Your task to perform on an android device: uninstall "PlayWell" Image 0: 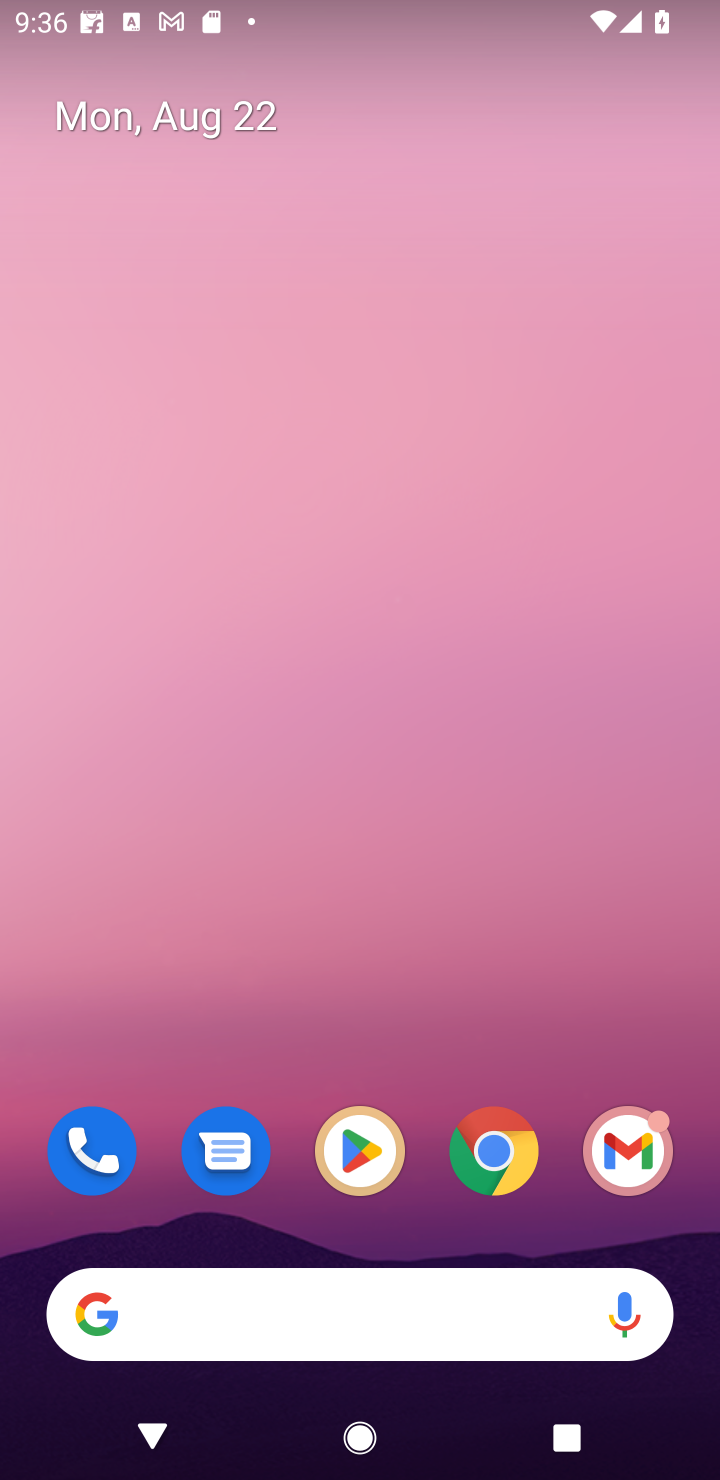
Step 0: press home button
Your task to perform on an android device: uninstall "PlayWell" Image 1: 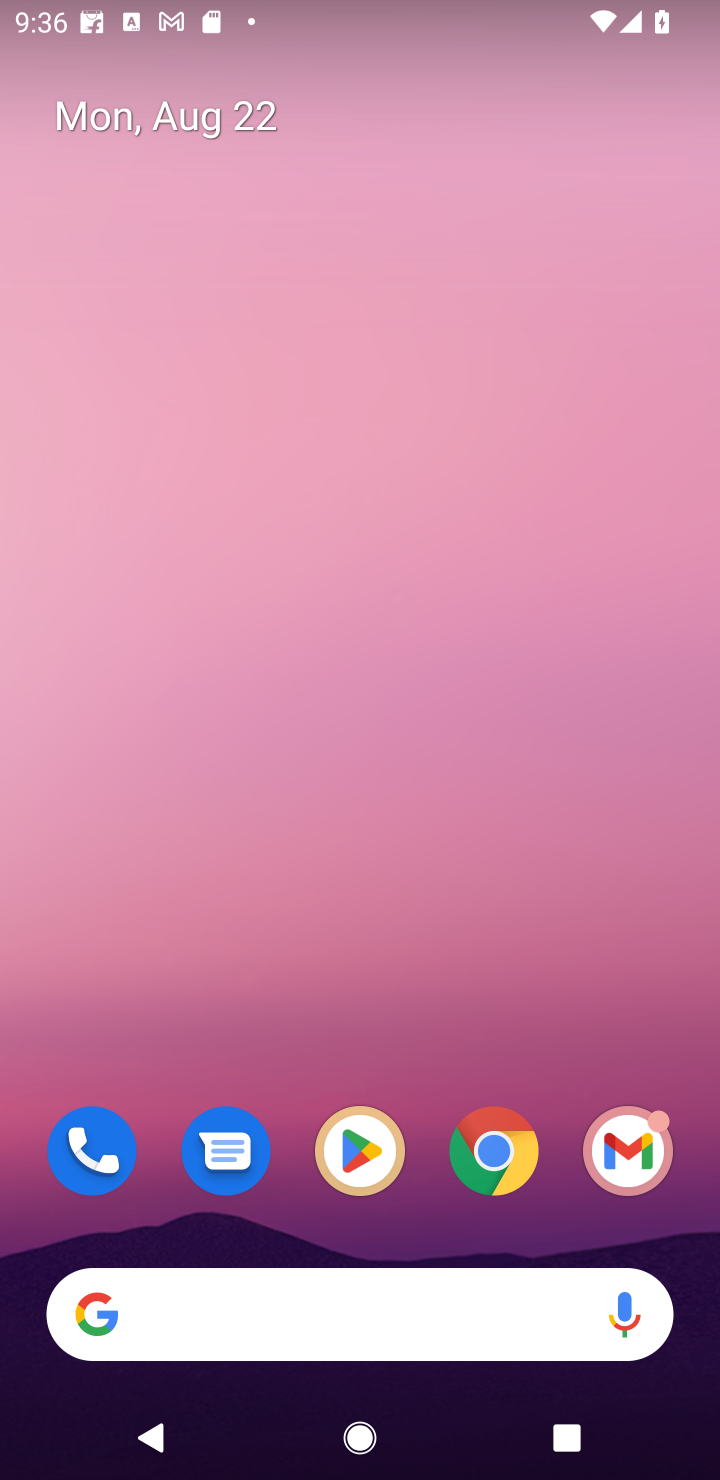
Step 1: click (363, 1158)
Your task to perform on an android device: uninstall "PlayWell" Image 2: 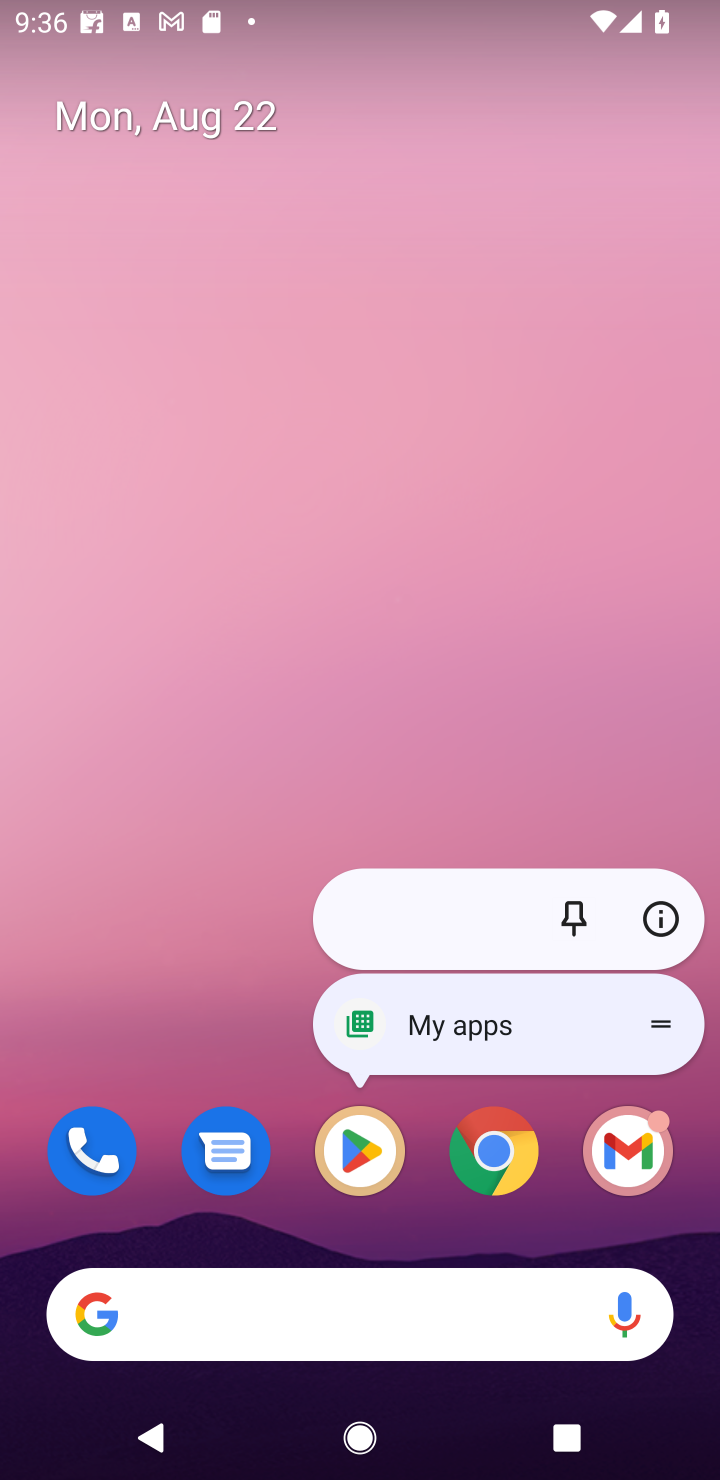
Step 2: click (352, 1158)
Your task to perform on an android device: uninstall "PlayWell" Image 3: 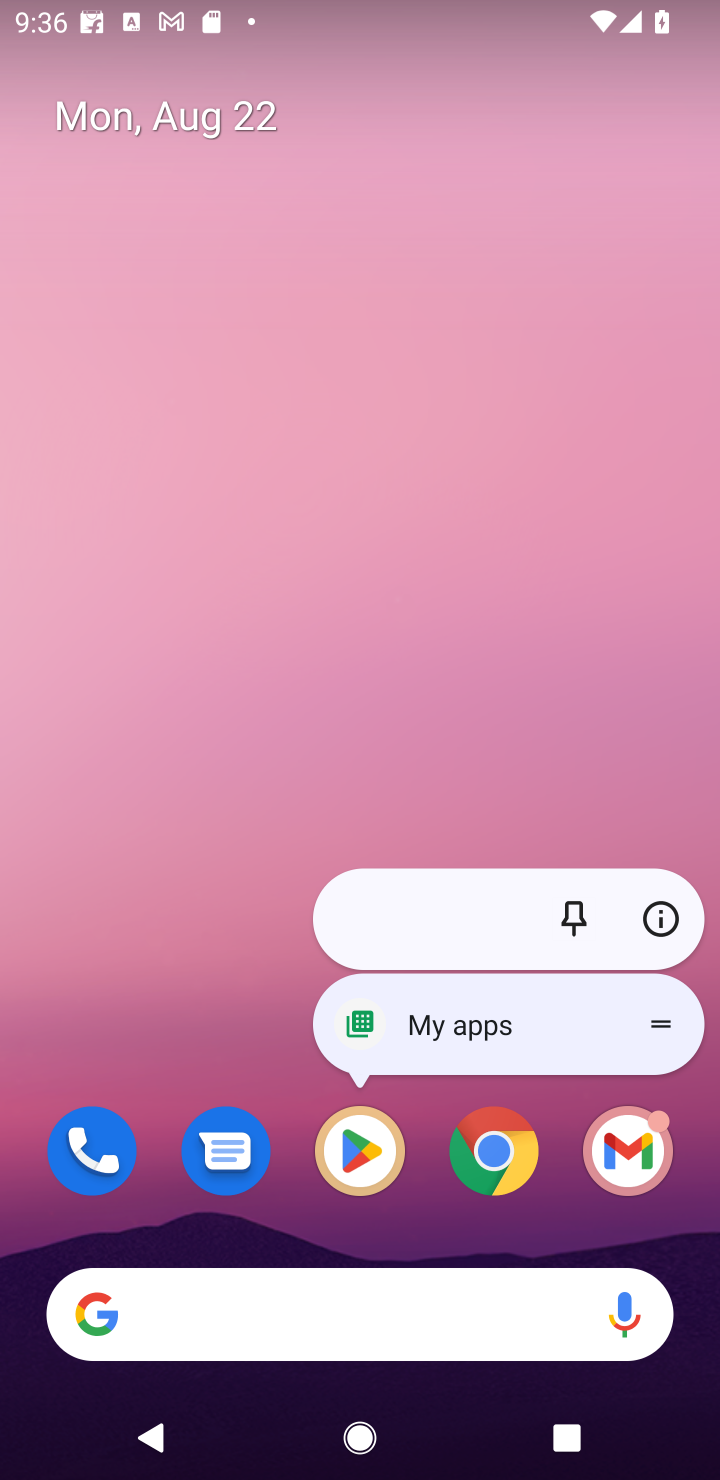
Step 3: click (352, 1158)
Your task to perform on an android device: uninstall "PlayWell" Image 4: 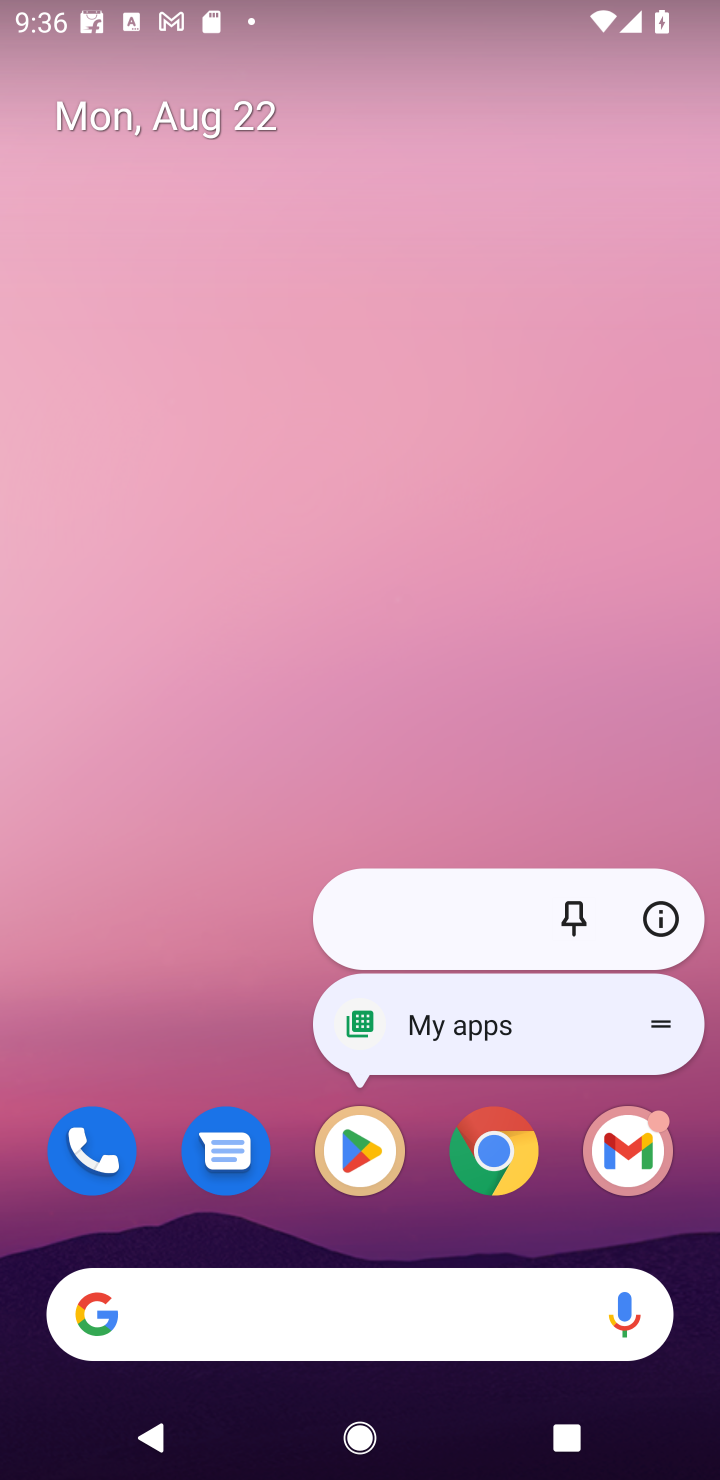
Step 4: click (352, 1155)
Your task to perform on an android device: uninstall "PlayWell" Image 5: 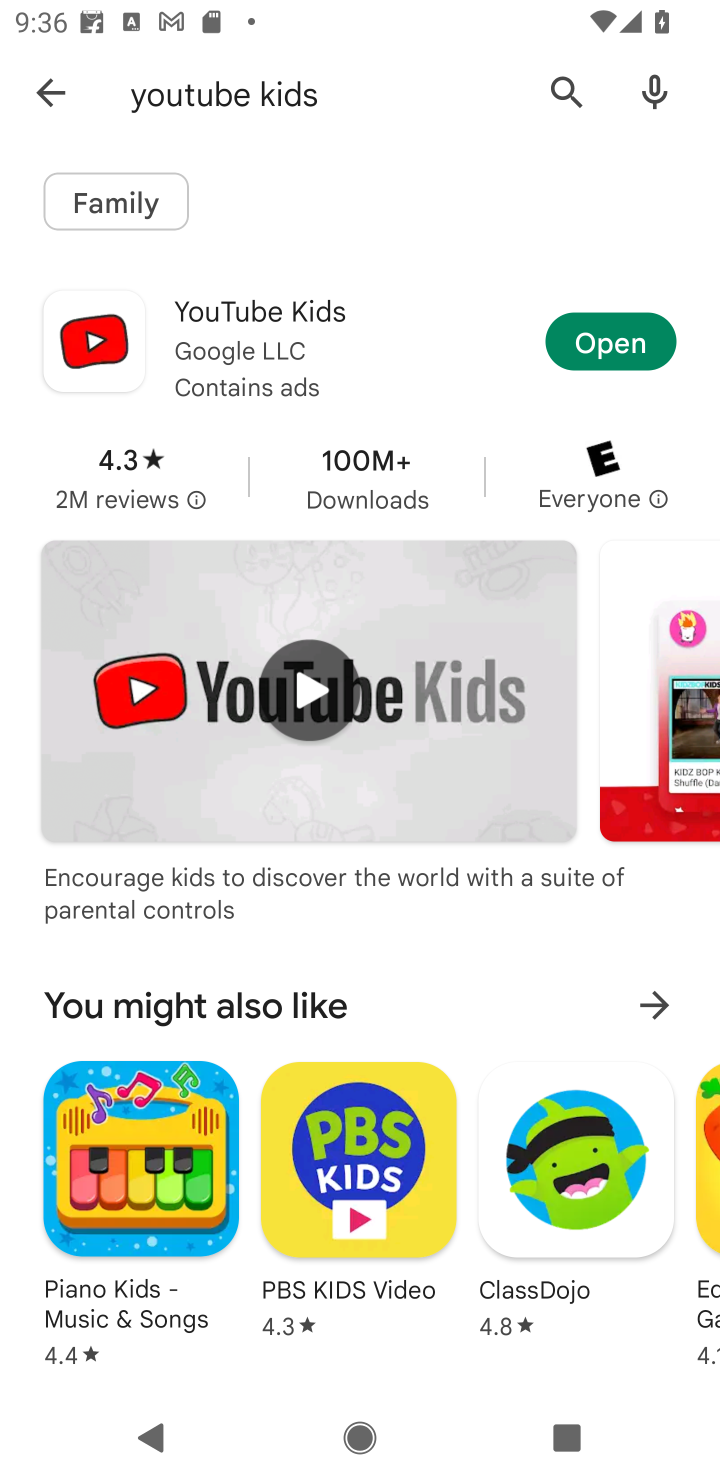
Step 5: click (557, 78)
Your task to perform on an android device: uninstall "PlayWell" Image 6: 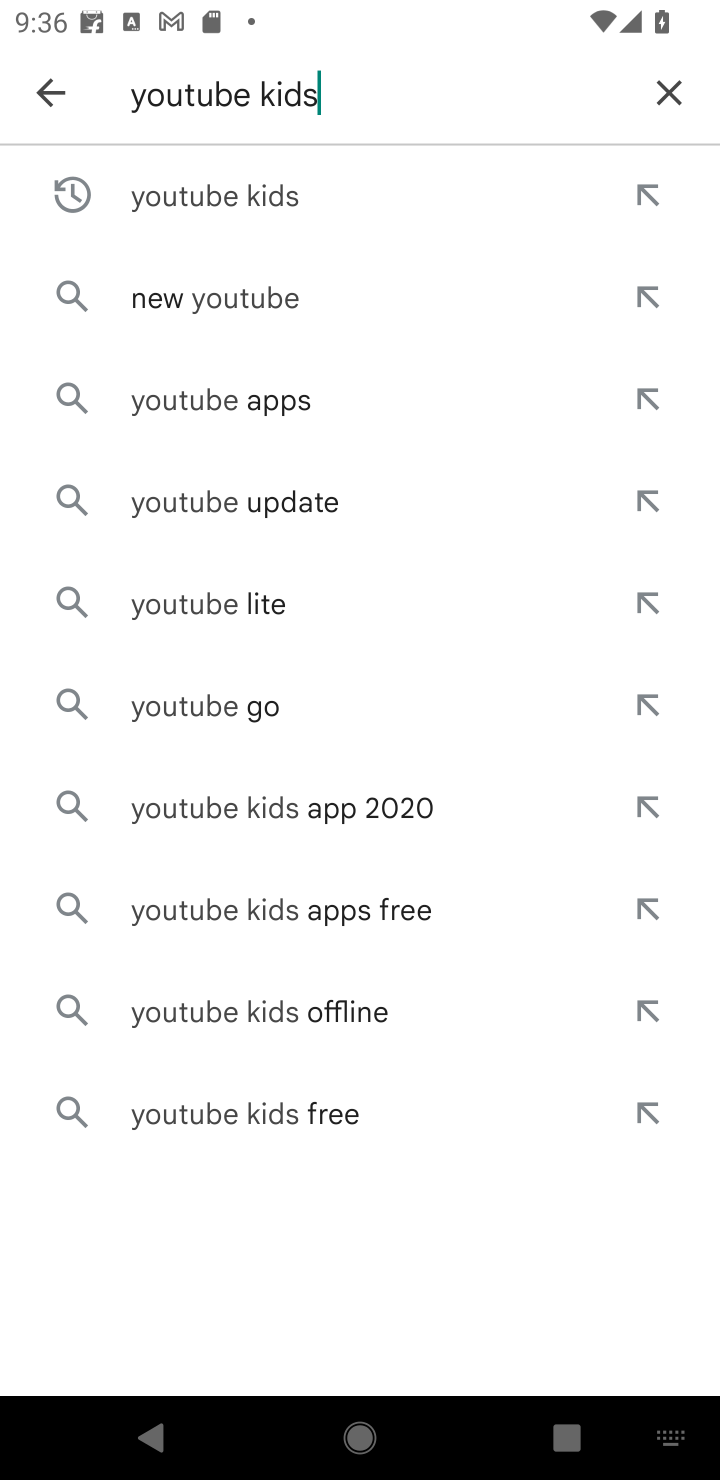
Step 6: click (649, 88)
Your task to perform on an android device: uninstall "PlayWell" Image 7: 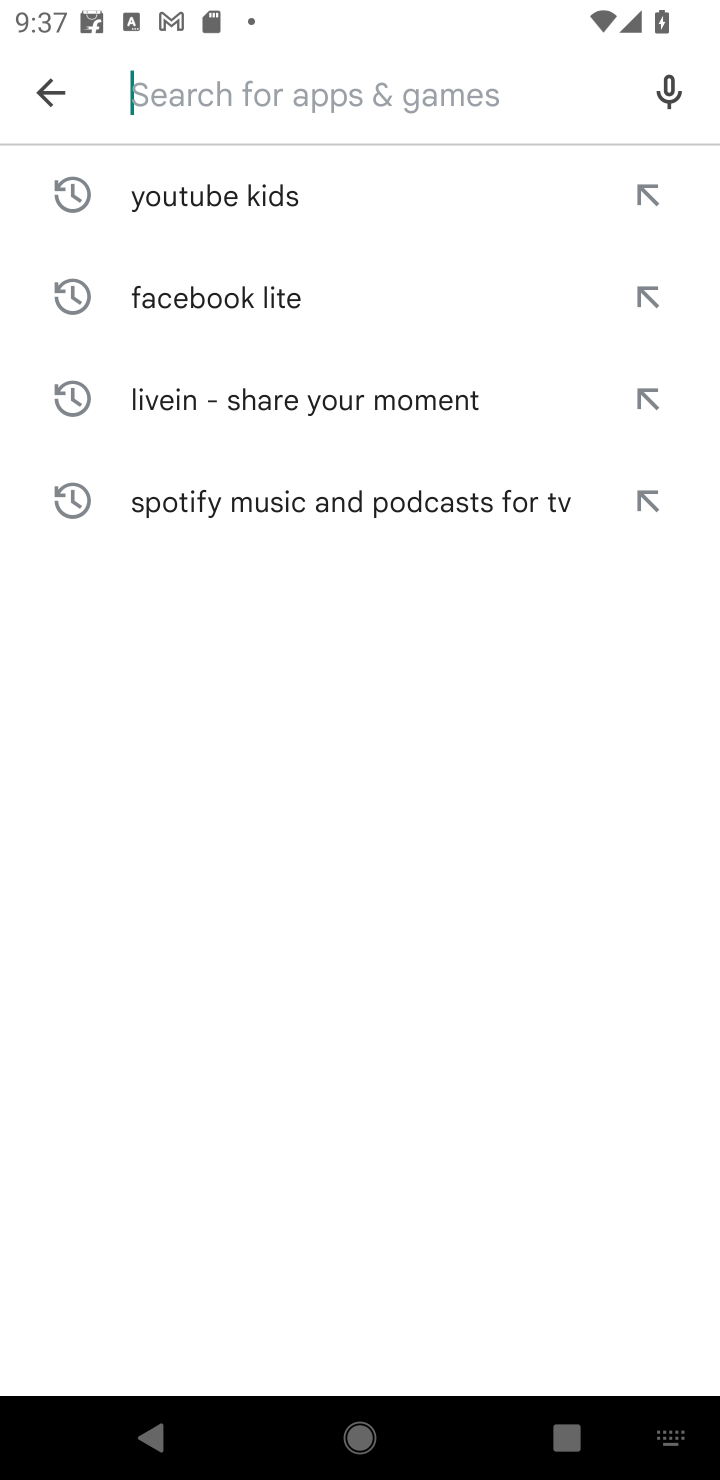
Step 7: type "PlayWell"
Your task to perform on an android device: uninstall "PlayWell" Image 8: 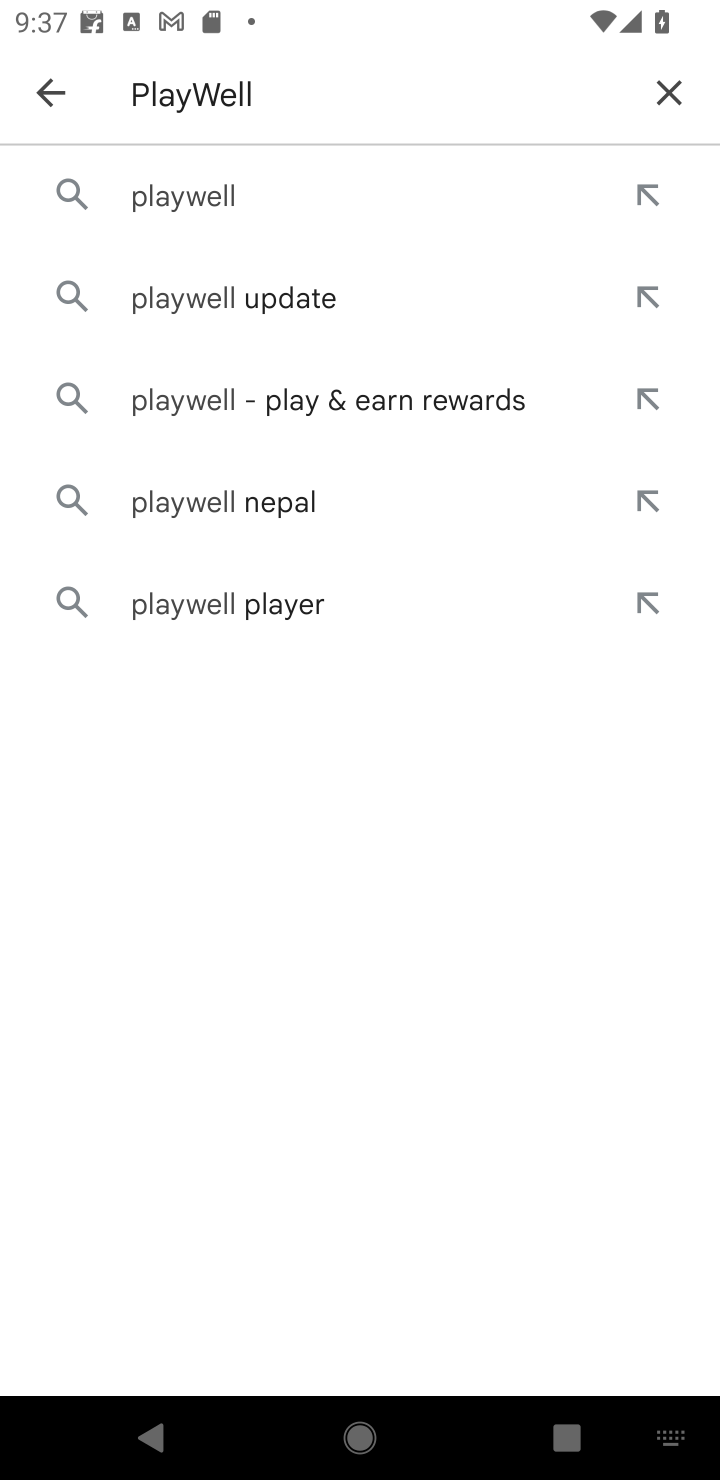
Step 8: click (243, 193)
Your task to perform on an android device: uninstall "PlayWell" Image 9: 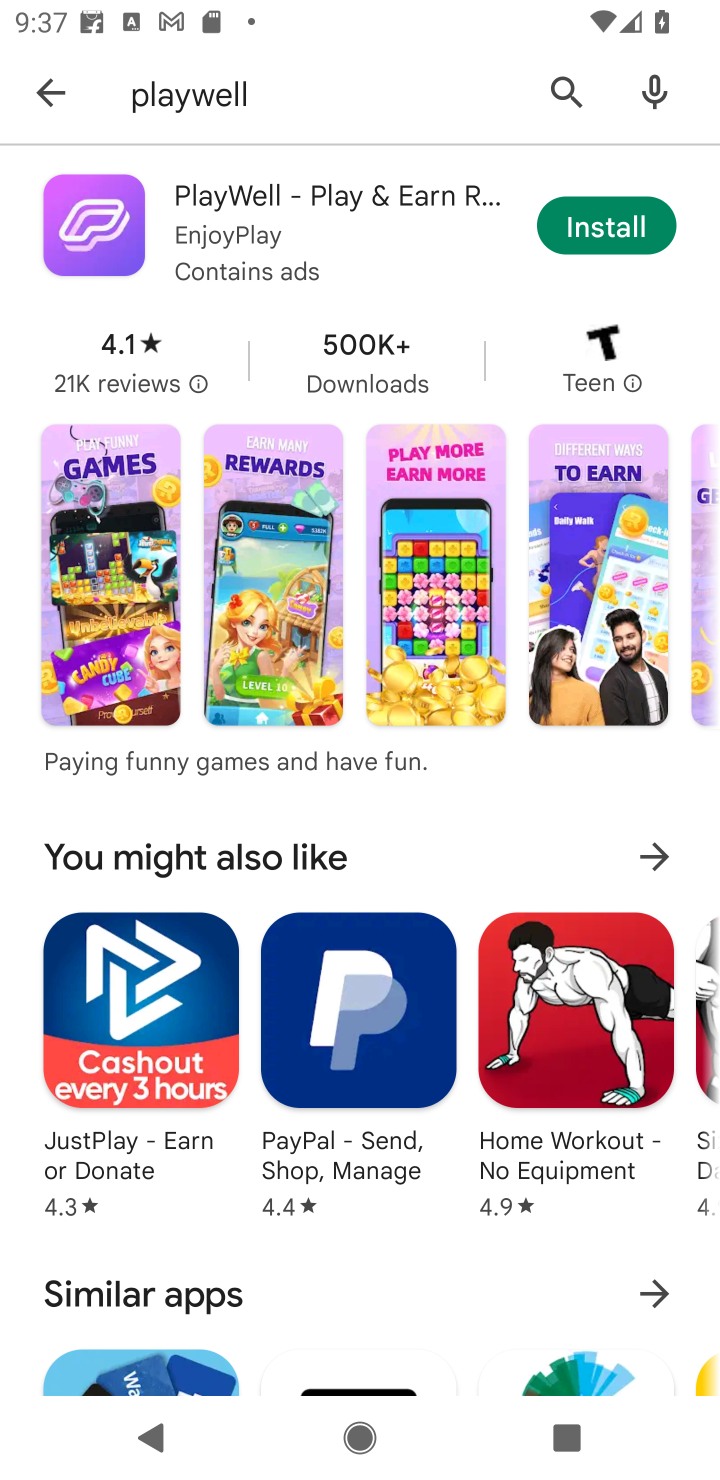
Step 9: task complete